Your task to perform on an android device: toggle improve location accuracy Image 0: 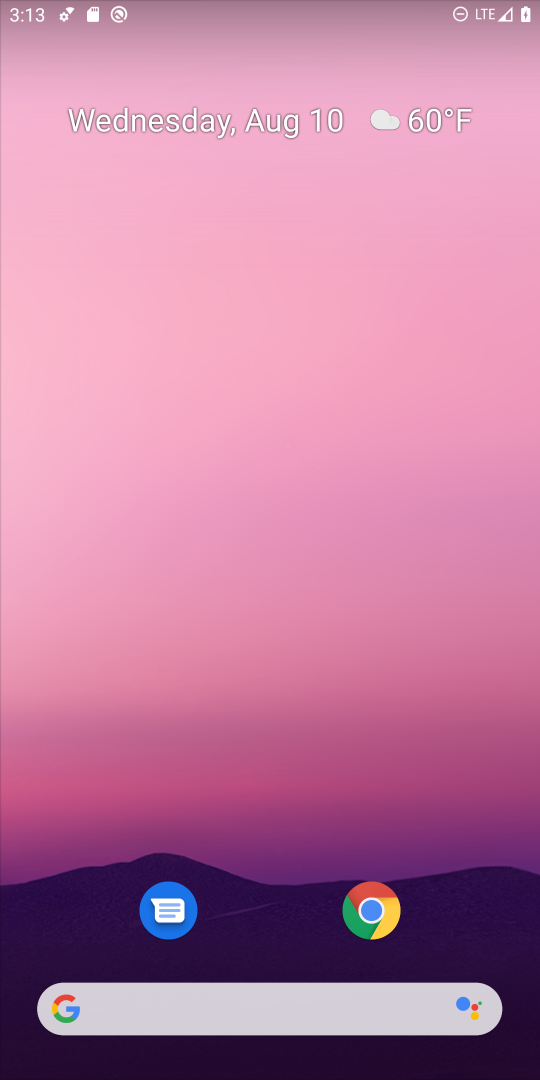
Step 0: drag from (295, 943) to (425, 49)
Your task to perform on an android device: toggle improve location accuracy Image 1: 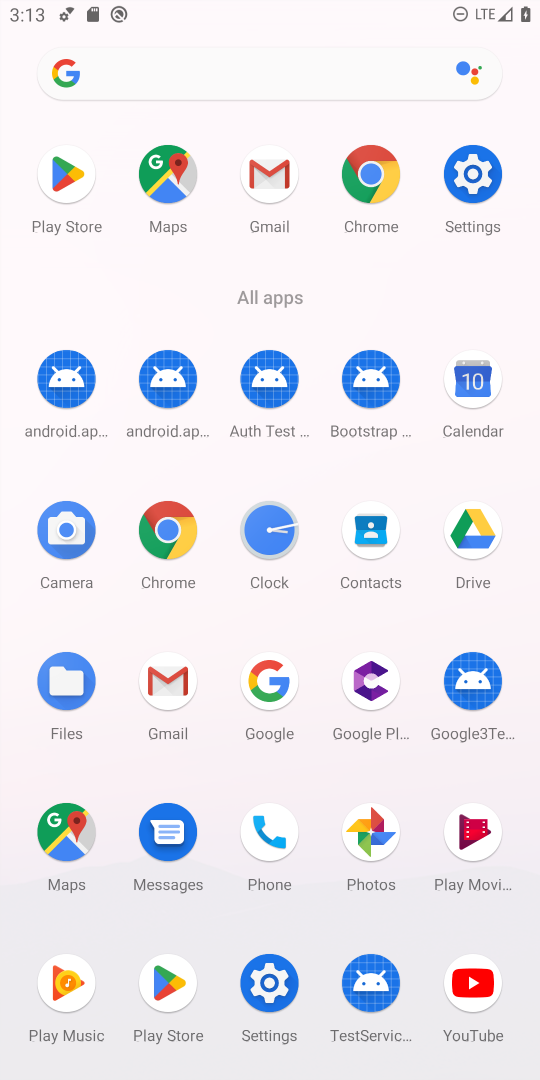
Step 1: click (465, 211)
Your task to perform on an android device: toggle improve location accuracy Image 2: 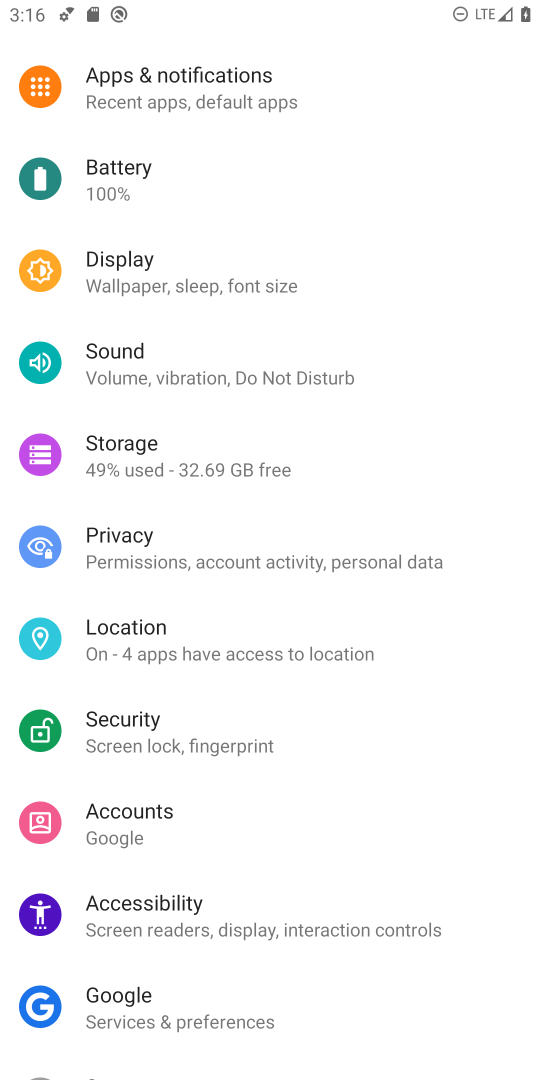
Step 2: click (133, 652)
Your task to perform on an android device: toggle improve location accuracy Image 3: 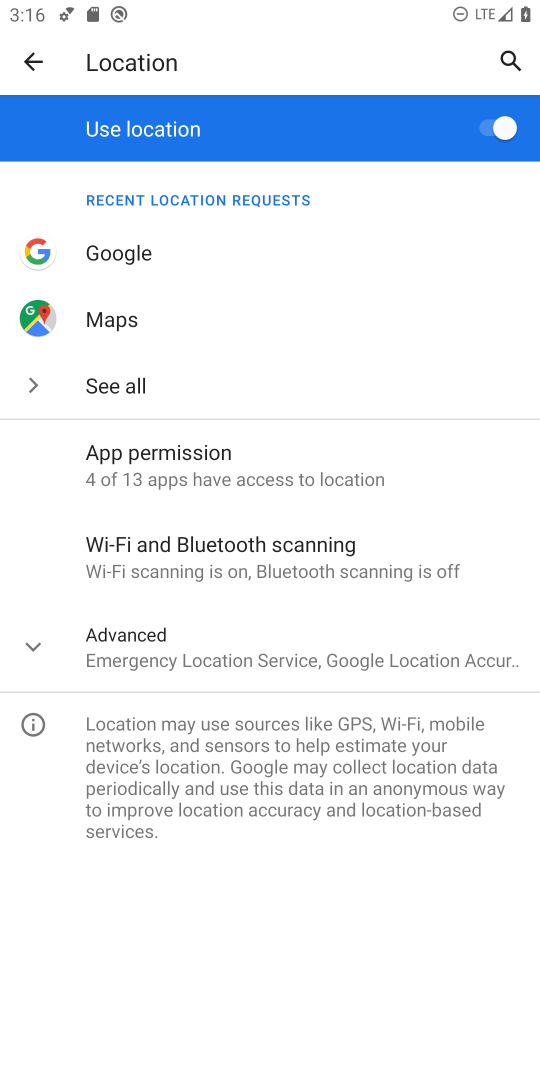
Step 3: click (155, 649)
Your task to perform on an android device: toggle improve location accuracy Image 4: 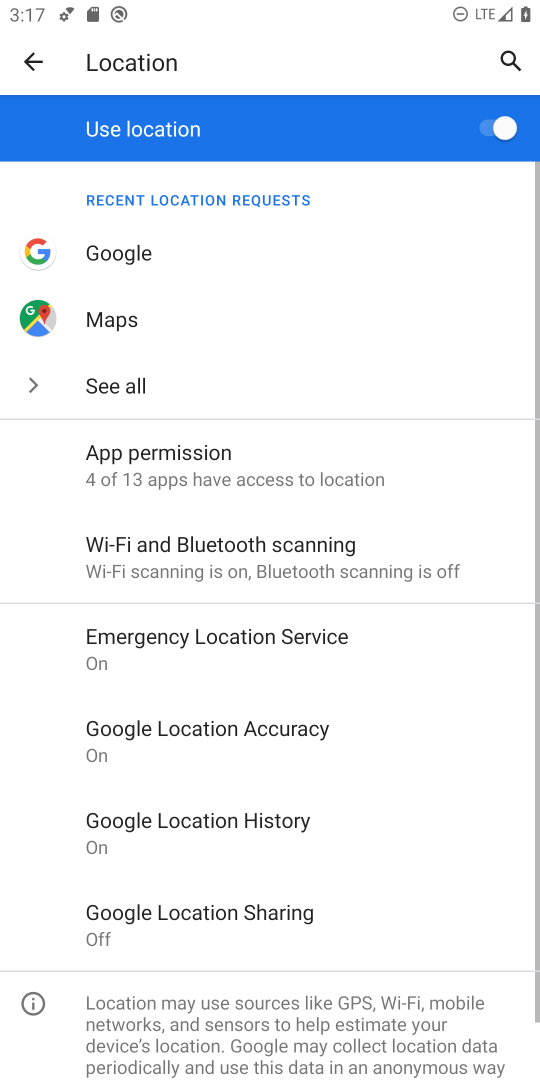
Step 4: drag from (155, 649) to (154, 839)
Your task to perform on an android device: toggle improve location accuracy Image 5: 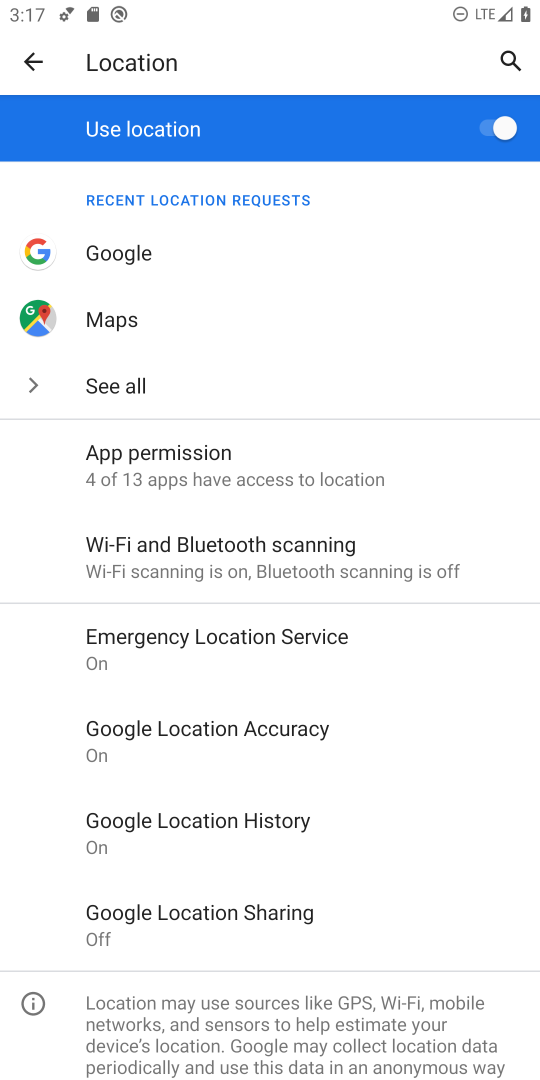
Step 5: click (181, 727)
Your task to perform on an android device: toggle improve location accuracy Image 6: 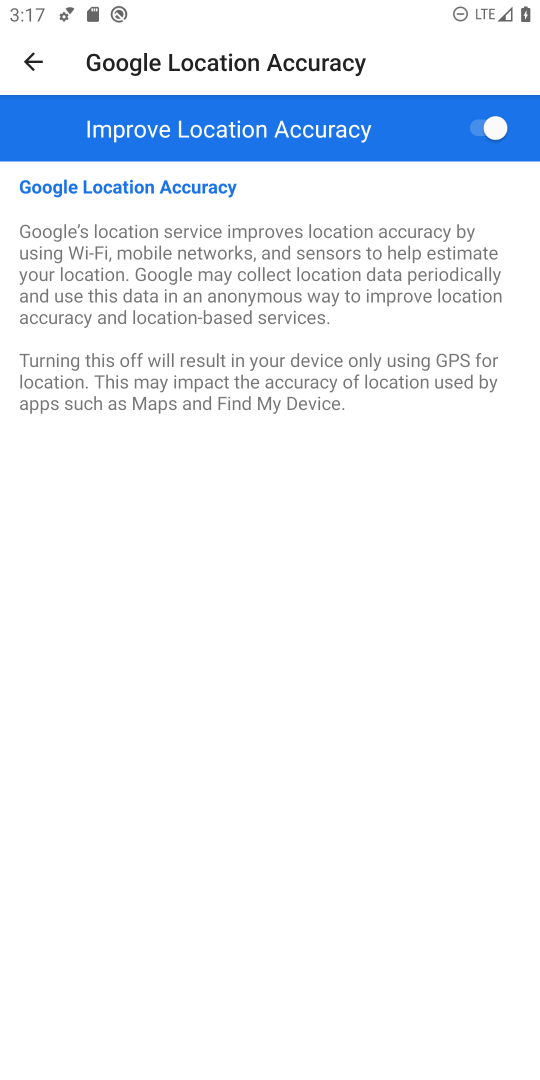
Step 6: click (482, 129)
Your task to perform on an android device: toggle improve location accuracy Image 7: 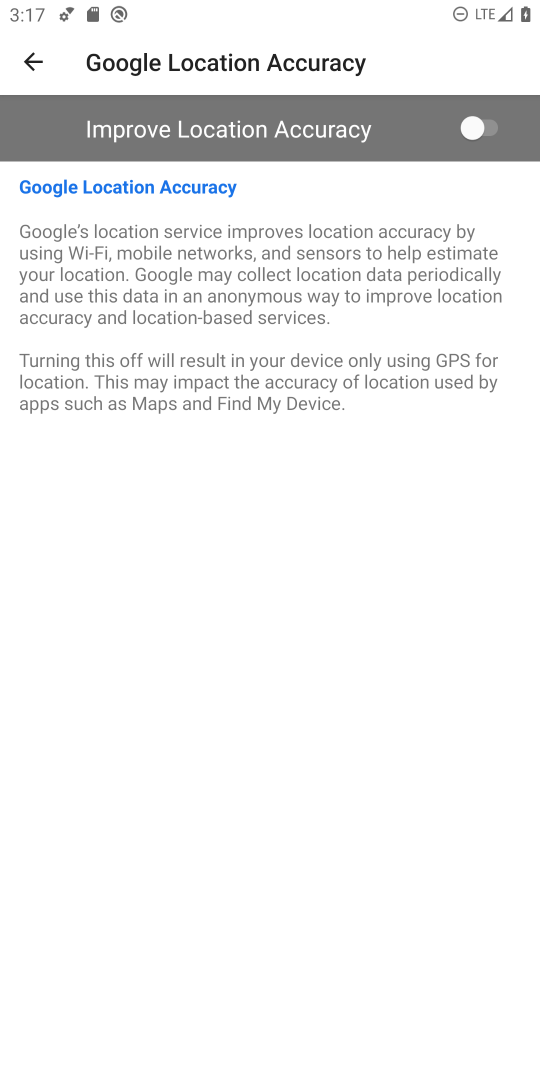
Step 7: task complete